Your task to perform on an android device: Open Chrome and go to the settings page Image 0: 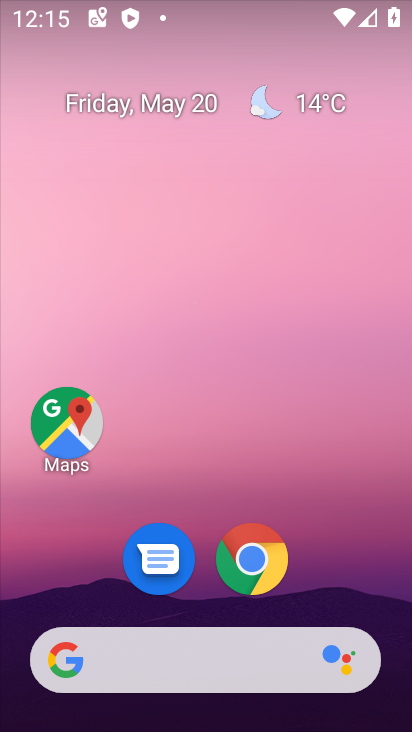
Step 0: click (277, 574)
Your task to perform on an android device: Open Chrome and go to the settings page Image 1: 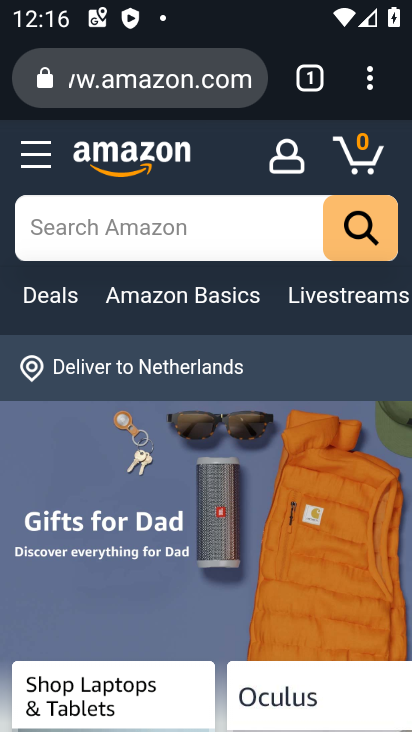
Step 1: click (382, 63)
Your task to perform on an android device: Open Chrome and go to the settings page Image 2: 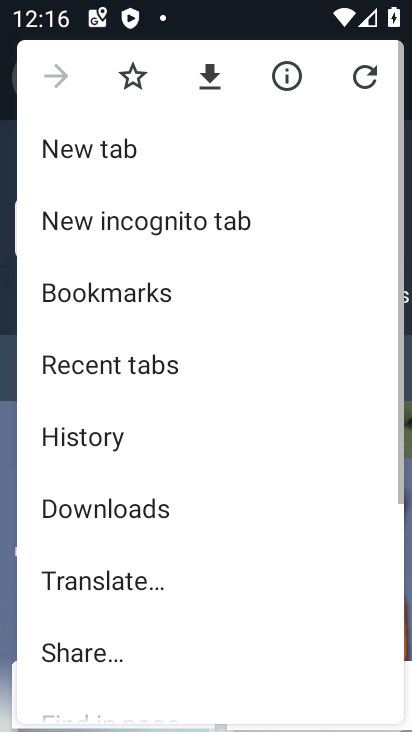
Step 2: drag from (223, 603) to (199, 501)
Your task to perform on an android device: Open Chrome and go to the settings page Image 3: 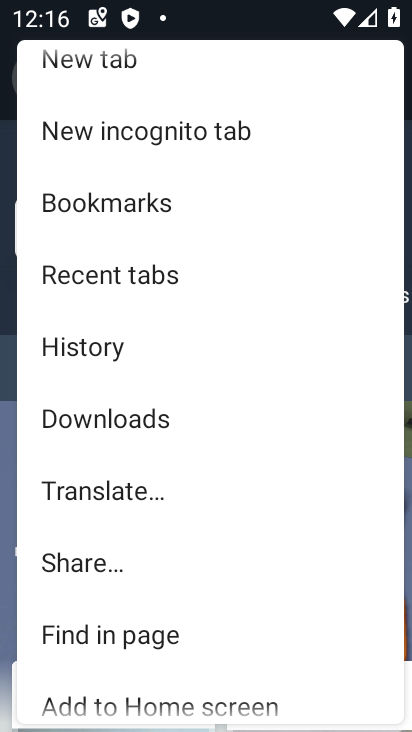
Step 3: drag from (124, 629) to (121, 368)
Your task to perform on an android device: Open Chrome and go to the settings page Image 4: 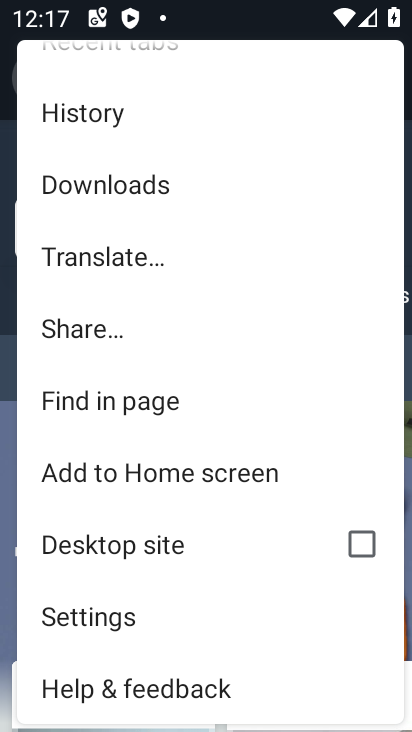
Step 4: click (118, 583)
Your task to perform on an android device: Open Chrome and go to the settings page Image 5: 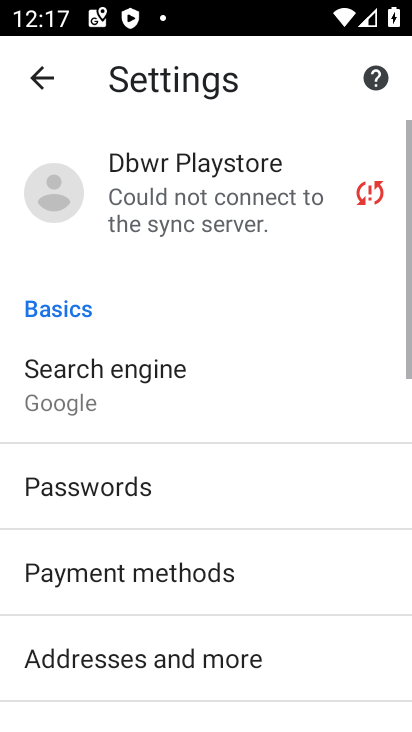
Step 5: task complete